Your task to perform on an android device: turn on priority inbox in the gmail app Image 0: 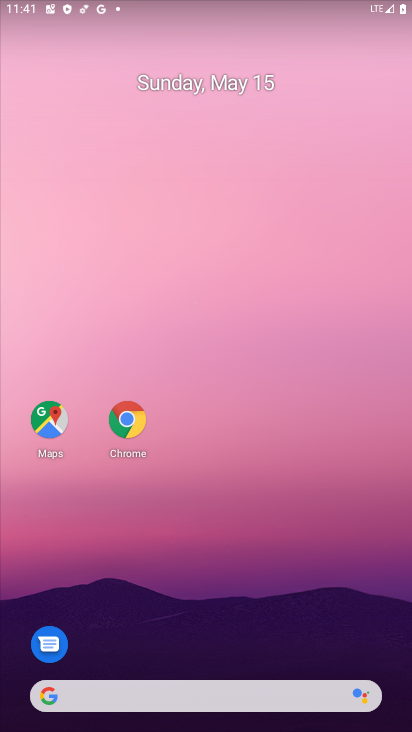
Step 0: drag from (191, 625) to (198, 432)
Your task to perform on an android device: turn on priority inbox in the gmail app Image 1: 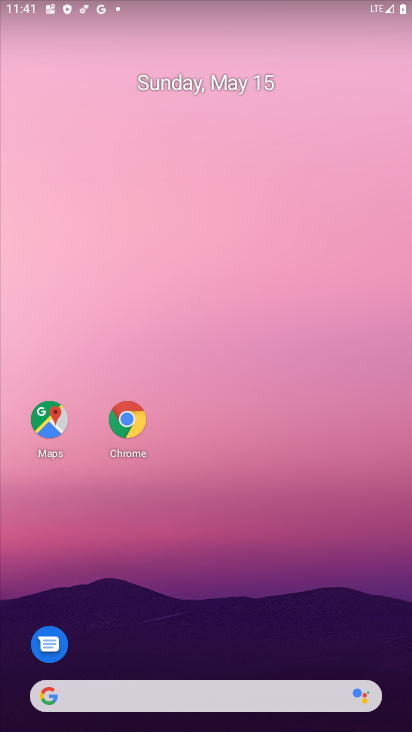
Step 1: drag from (223, 525) to (238, 96)
Your task to perform on an android device: turn on priority inbox in the gmail app Image 2: 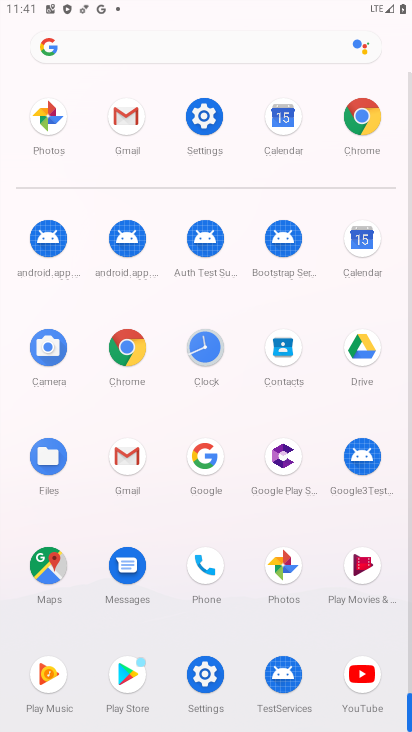
Step 2: drag from (150, 623) to (187, 207)
Your task to perform on an android device: turn on priority inbox in the gmail app Image 3: 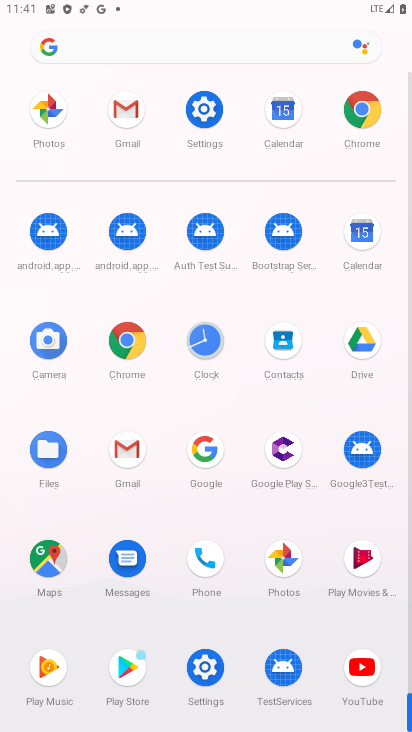
Step 3: click (134, 455)
Your task to perform on an android device: turn on priority inbox in the gmail app Image 4: 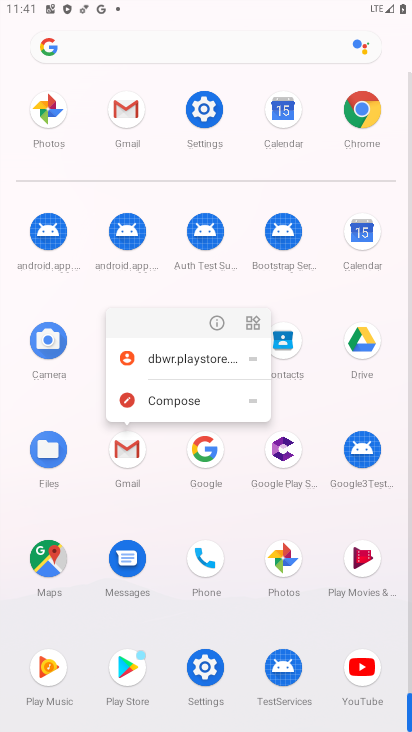
Step 4: click (217, 323)
Your task to perform on an android device: turn on priority inbox in the gmail app Image 5: 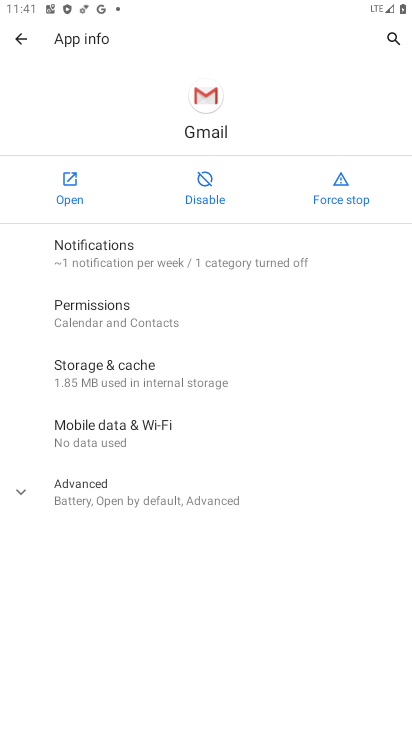
Step 5: click (50, 186)
Your task to perform on an android device: turn on priority inbox in the gmail app Image 6: 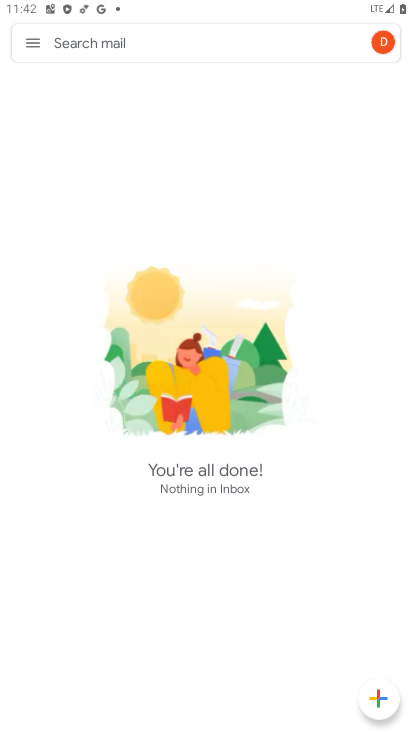
Step 6: click (38, 42)
Your task to perform on an android device: turn on priority inbox in the gmail app Image 7: 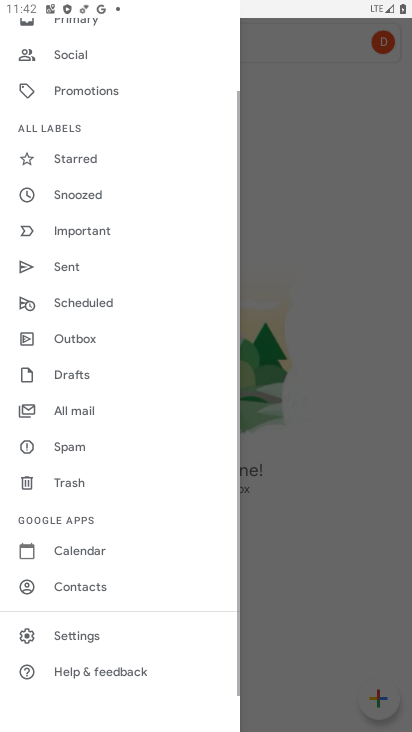
Step 7: drag from (142, 614) to (152, 537)
Your task to perform on an android device: turn on priority inbox in the gmail app Image 8: 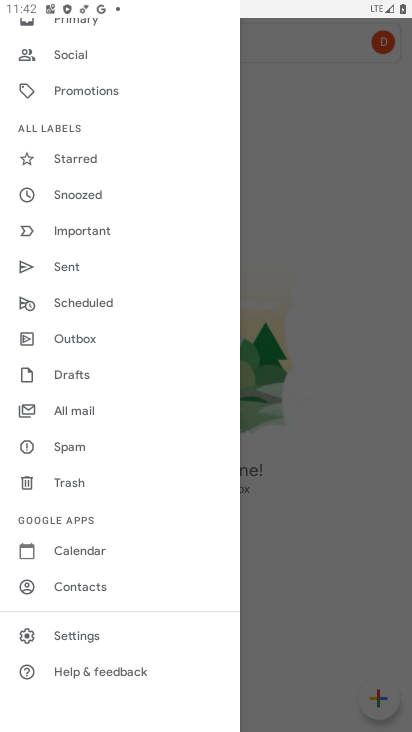
Step 8: click (49, 630)
Your task to perform on an android device: turn on priority inbox in the gmail app Image 9: 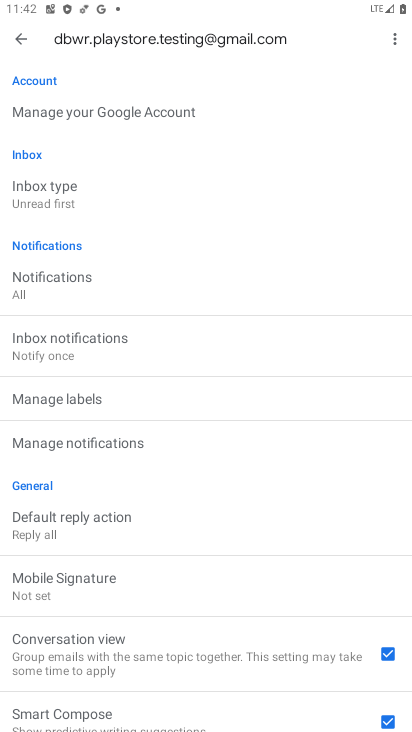
Step 9: drag from (198, 599) to (309, 133)
Your task to perform on an android device: turn on priority inbox in the gmail app Image 10: 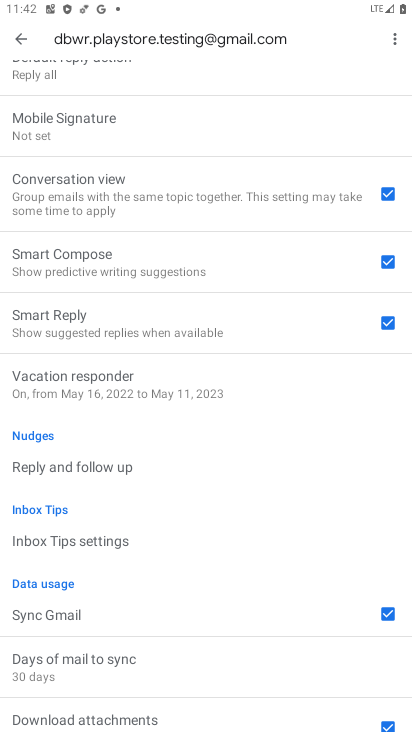
Step 10: drag from (288, 141) to (340, 719)
Your task to perform on an android device: turn on priority inbox in the gmail app Image 11: 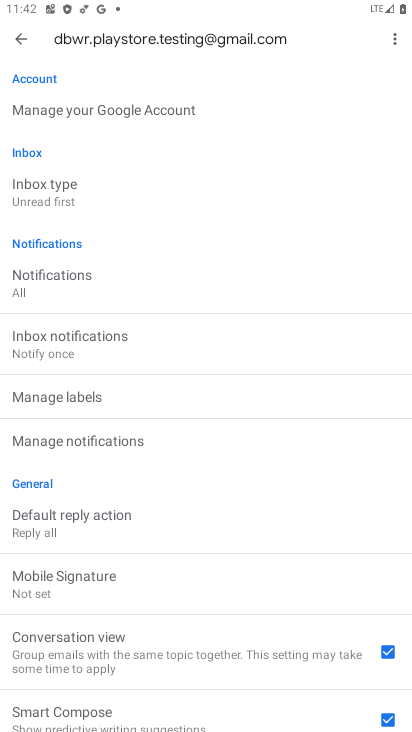
Step 11: click (37, 175)
Your task to perform on an android device: turn on priority inbox in the gmail app Image 12: 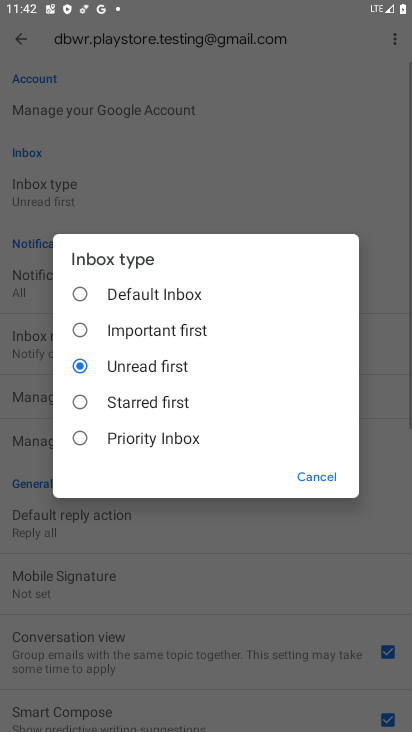
Step 12: click (136, 439)
Your task to perform on an android device: turn on priority inbox in the gmail app Image 13: 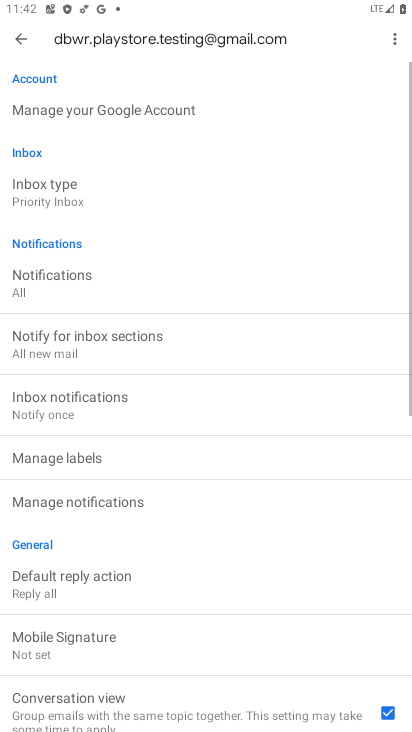
Step 13: task complete